Your task to perform on an android device: turn vacation reply on in the gmail app Image 0: 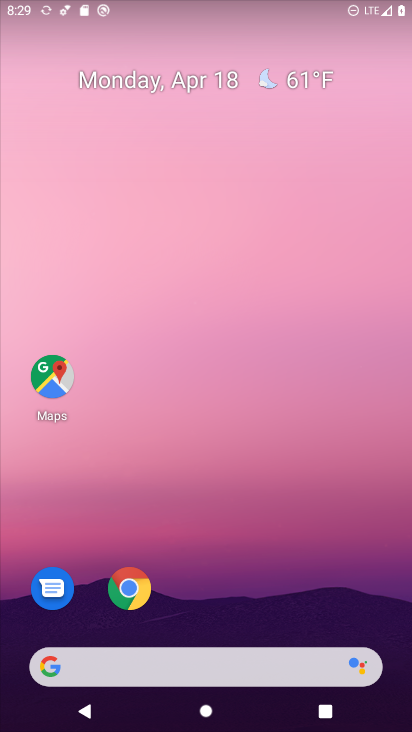
Step 0: drag from (385, 563) to (353, 130)
Your task to perform on an android device: turn vacation reply on in the gmail app Image 1: 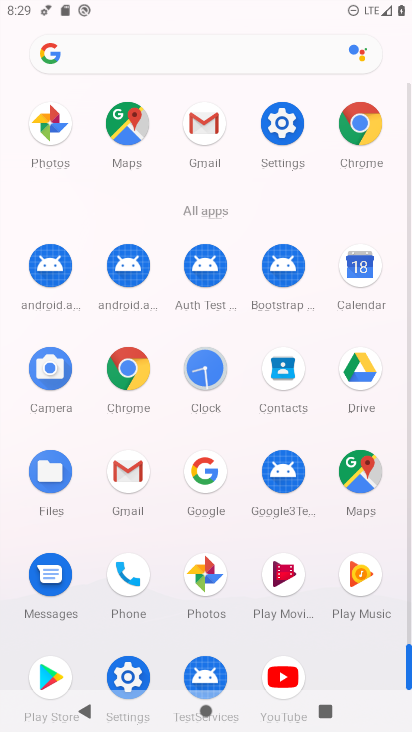
Step 1: click (128, 468)
Your task to perform on an android device: turn vacation reply on in the gmail app Image 2: 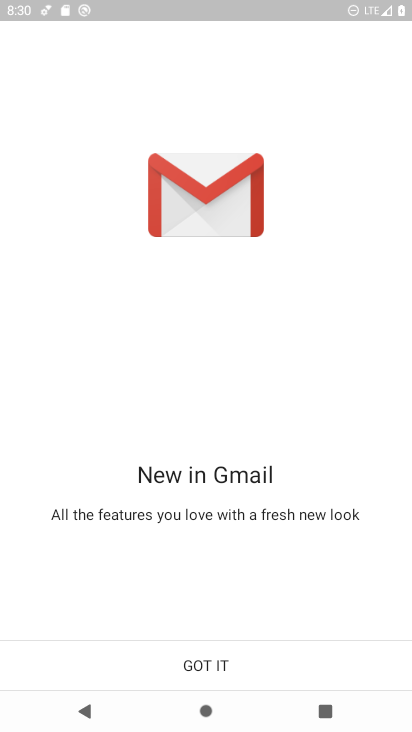
Step 2: click (207, 671)
Your task to perform on an android device: turn vacation reply on in the gmail app Image 3: 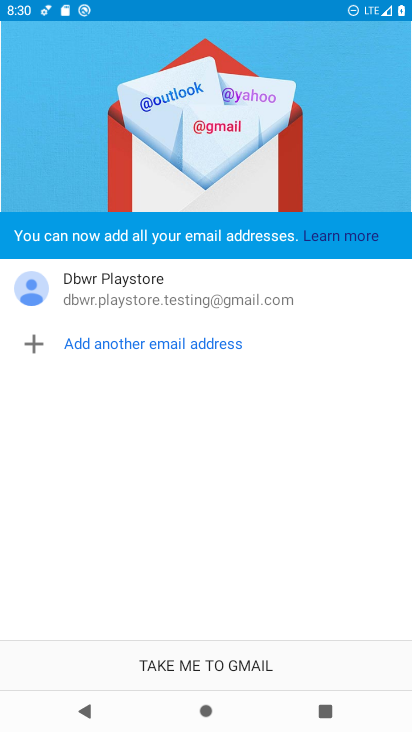
Step 3: click (190, 661)
Your task to perform on an android device: turn vacation reply on in the gmail app Image 4: 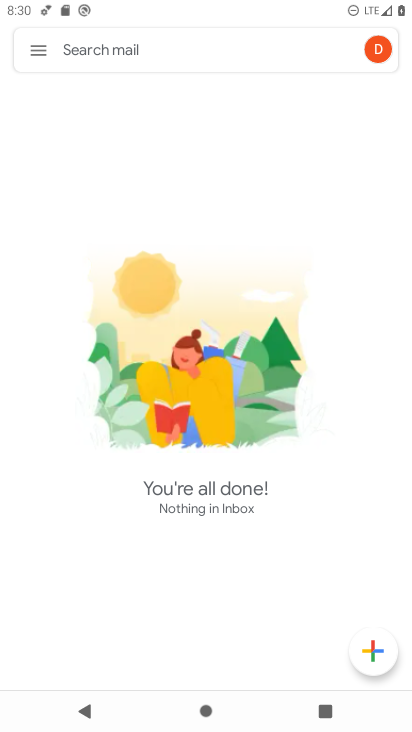
Step 4: click (35, 48)
Your task to perform on an android device: turn vacation reply on in the gmail app Image 5: 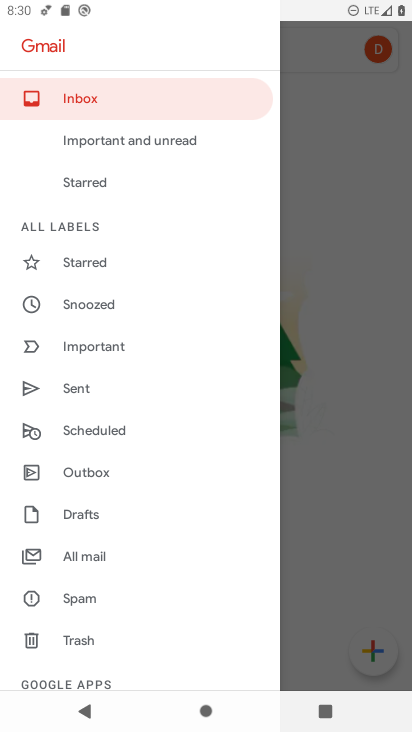
Step 5: drag from (156, 574) to (170, 362)
Your task to perform on an android device: turn vacation reply on in the gmail app Image 6: 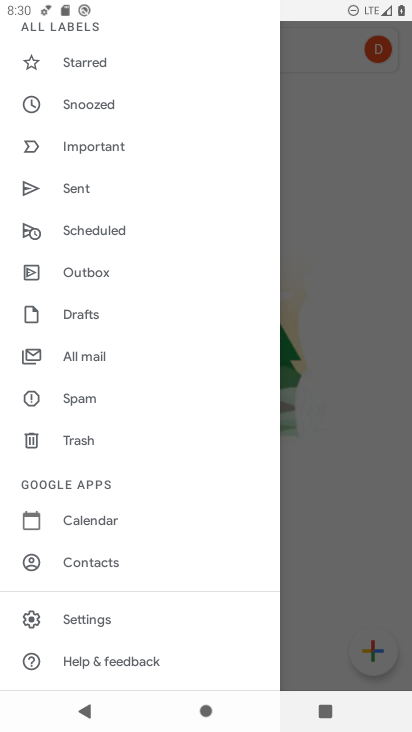
Step 6: click (72, 617)
Your task to perform on an android device: turn vacation reply on in the gmail app Image 7: 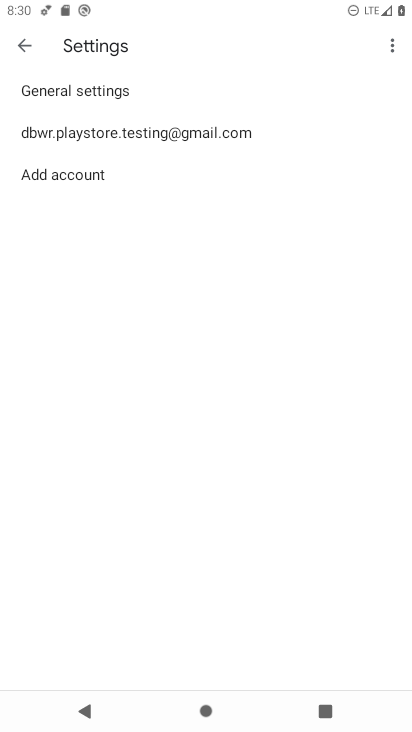
Step 7: click (117, 133)
Your task to perform on an android device: turn vacation reply on in the gmail app Image 8: 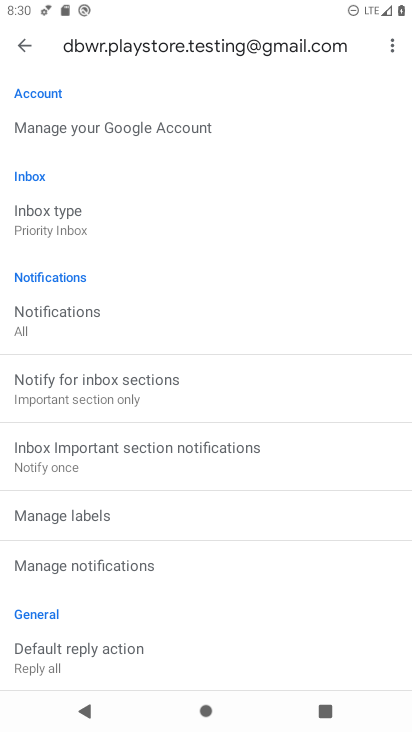
Step 8: drag from (261, 603) to (287, 285)
Your task to perform on an android device: turn vacation reply on in the gmail app Image 9: 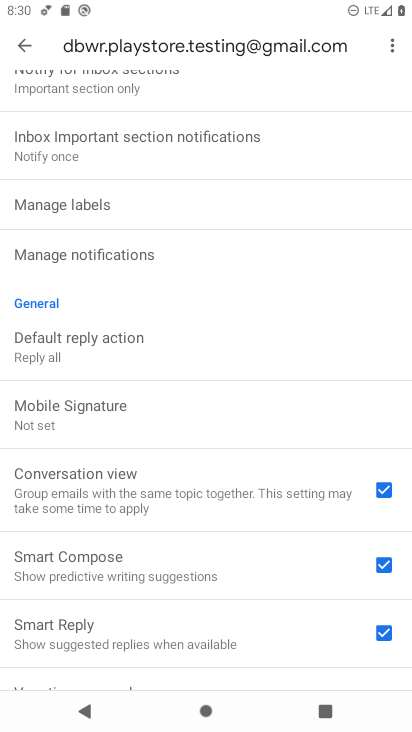
Step 9: drag from (256, 529) to (289, 229)
Your task to perform on an android device: turn vacation reply on in the gmail app Image 10: 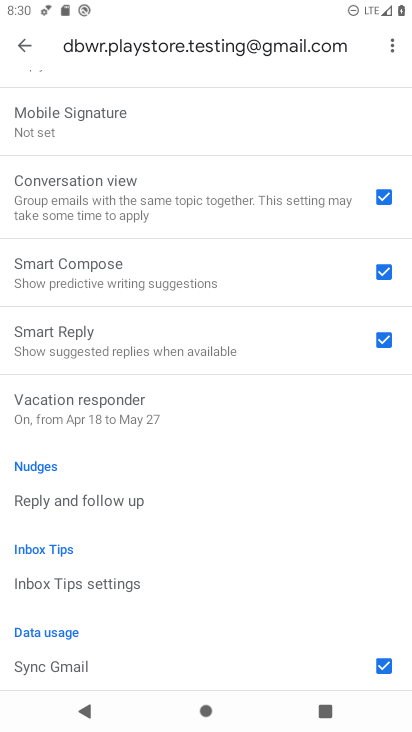
Step 10: click (58, 411)
Your task to perform on an android device: turn vacation reply on in the gmail app Image 11: 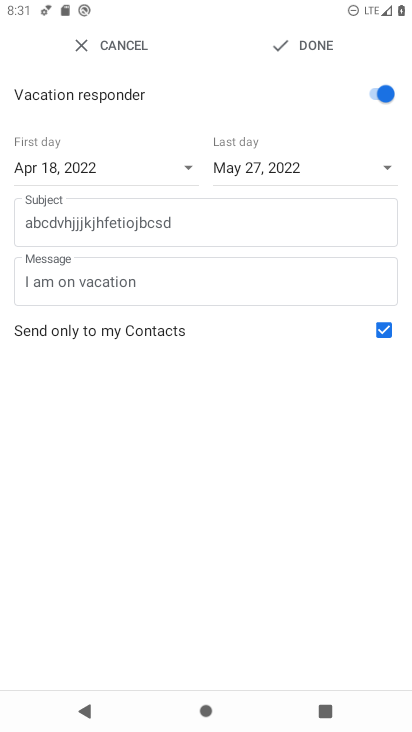
Step 11: task complete